Your task to perform on an android device: check storage Image 0: 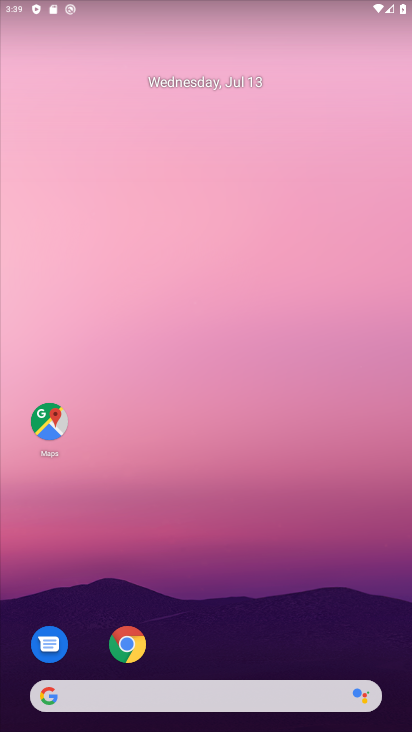
Step 0: drag from (251, 649) to (286, 41)
Your task to perform on an android device: check storage Image 1: 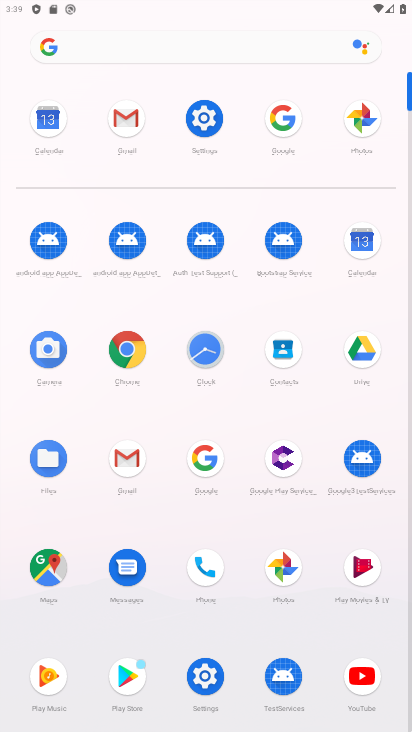
Step 1: click (209, 115)
Your task to perform on an android device: check storage Image 2: 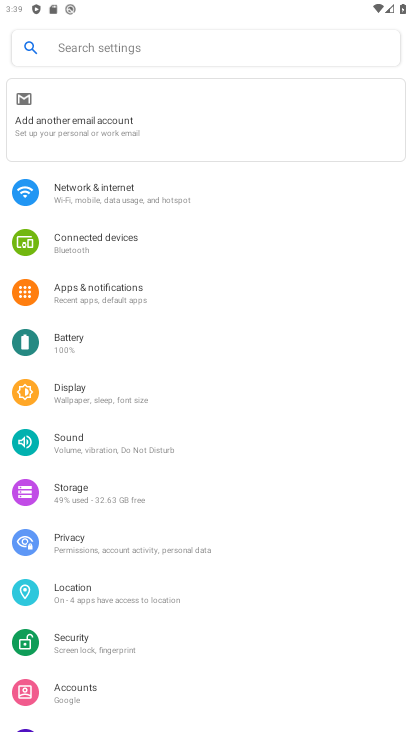
Step 2: click (89, 481)
Your task to perform on an android device: check storage Image 3: 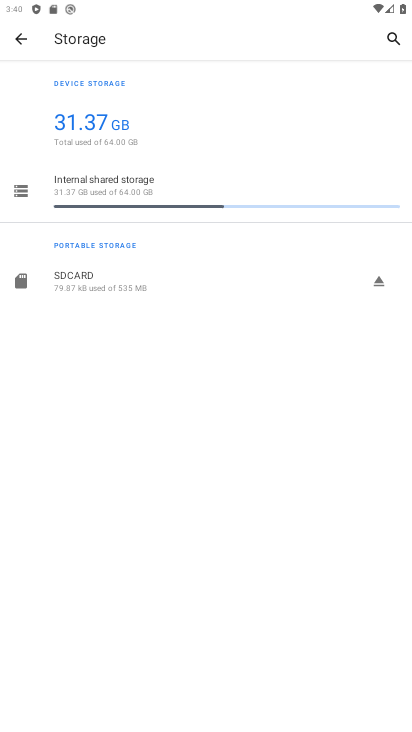
Step 3: task complete